Your task to perform on an android device: turn off sleep mode Image 0: 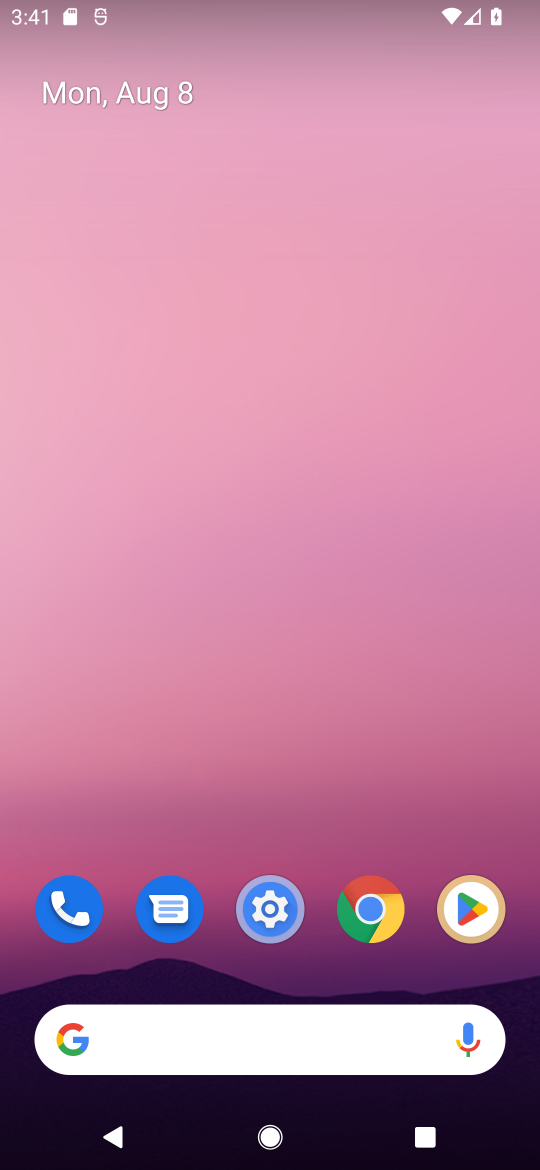
Step 0: drag from (278, 995) to (452, 821)
Your task to perform on an android device: turn off sleep mode Image 1: 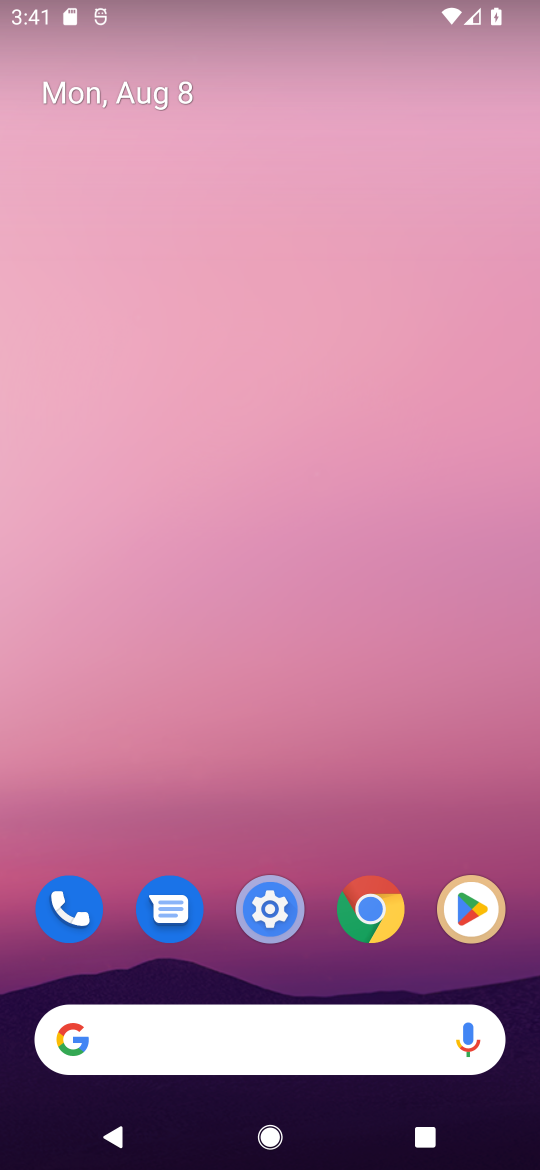
Step 1: drag from (358, 1000) to (277, 52)
Your task to perform on an android device: turn off sleep mode Image 2: 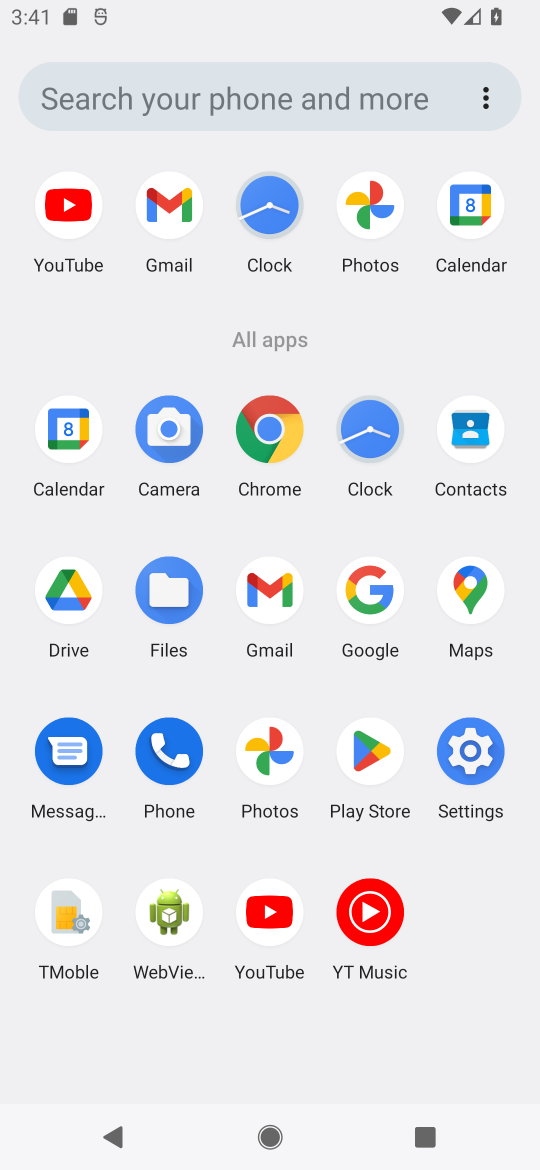
Step 2: click (470, 745)
Your task to perform on an android device: turn off sleep mode Image 3: 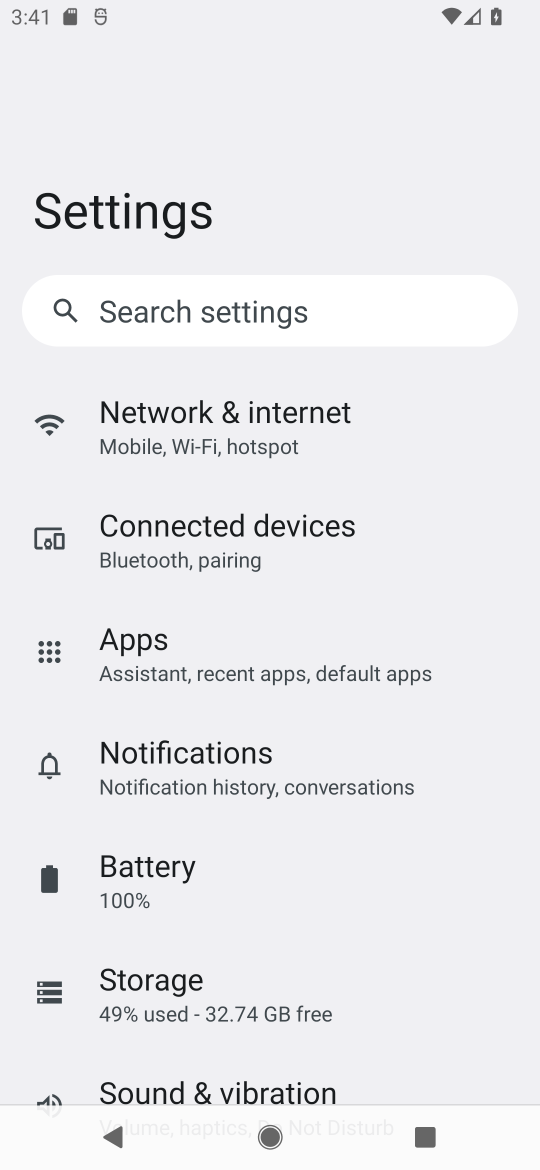
Step 3: drag from (165, 875) to (140, 228)
Your task to perform on an android device: turn off sleep mode Image 4: 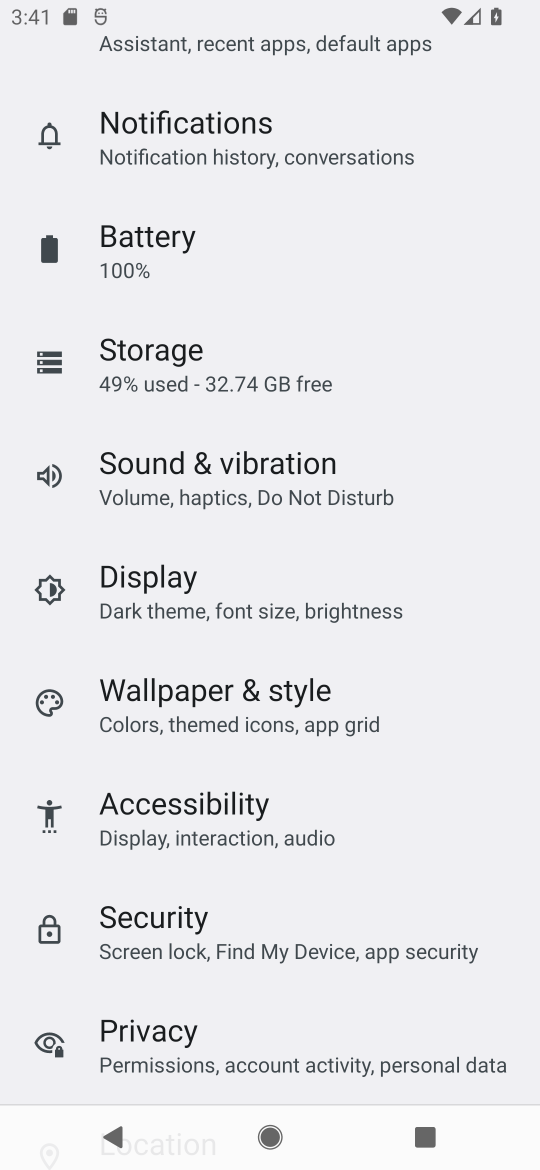
Step 4: click (216, 587)
Your task to perform on an android device: turn off sleep mode Image 5: 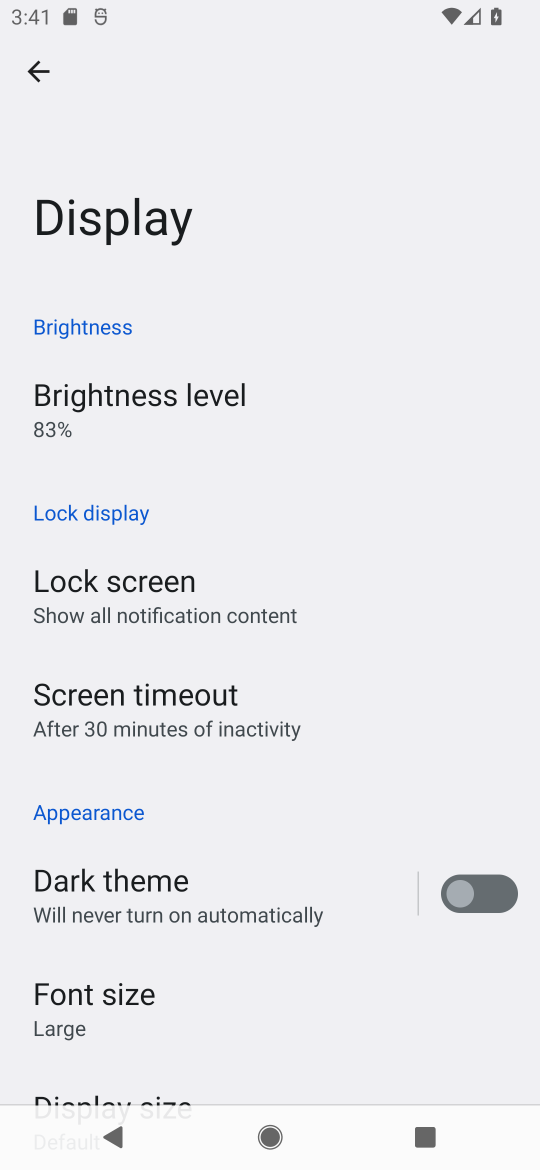
Step 5: task complete